Your task to perform on an android device: turn off notifications in google photos Image 0: 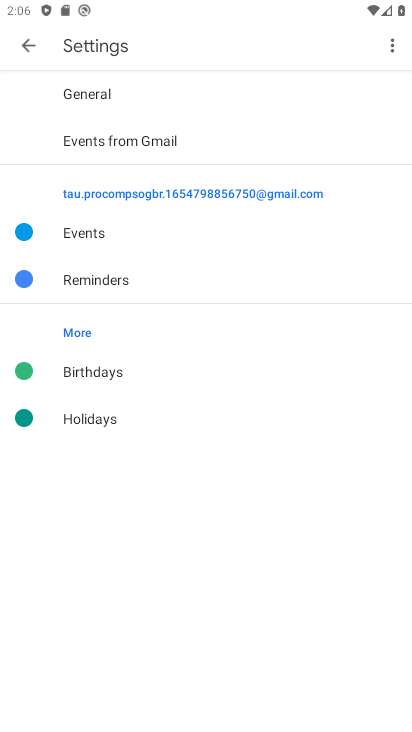
Step 0: press home button
Your task to perform on an android device: turn off notifications in google photos Image 1: 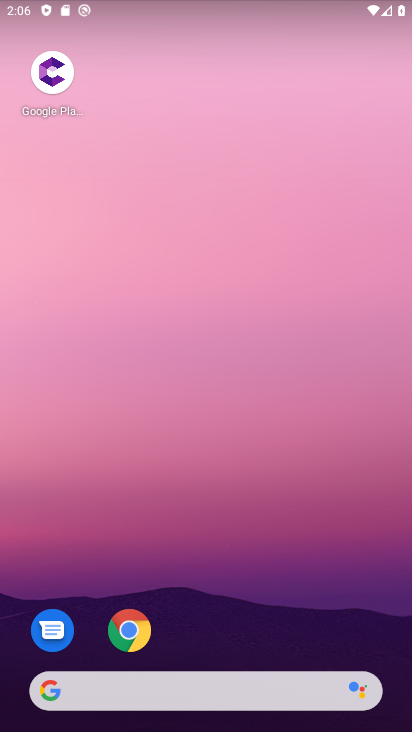
Step 1: drag from (249, 612) to (148, 13)
Your task to perform on an android device: turn off notifications in google photos Image 2: 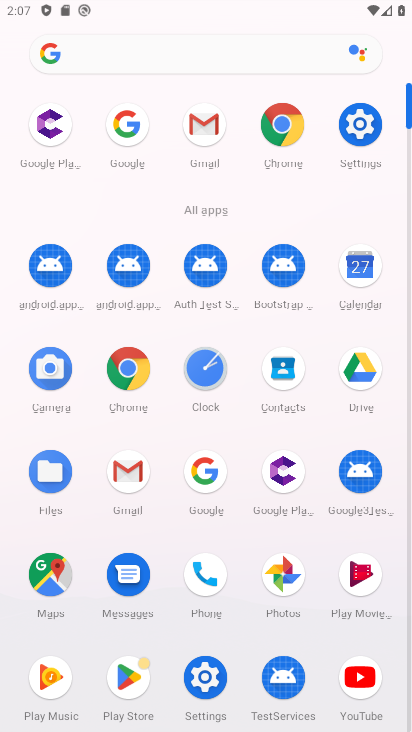
Step 2: click (278, 569)
Your task to perform on an android device: turn off notifications in google photos Image 3: 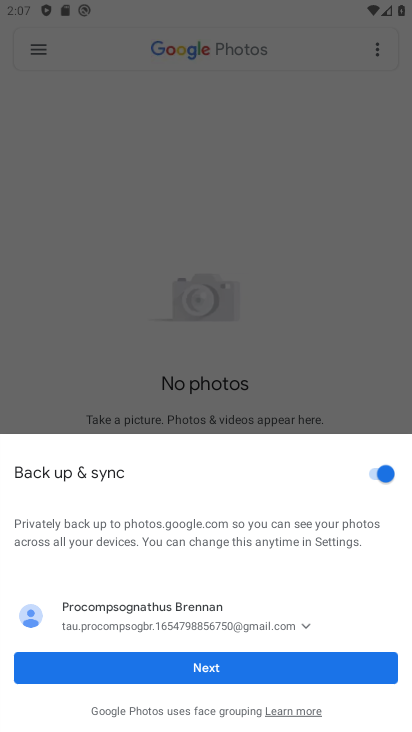
Step 3: click (232, 662)
Your task to perform on an android device: turn off notifications in google photos Image 4: 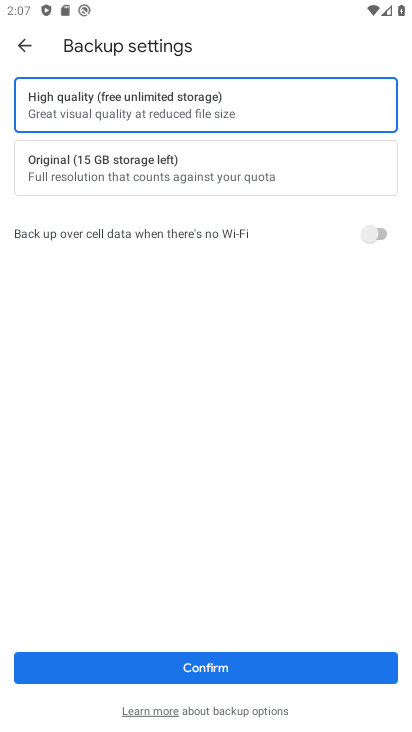
Step 4: click (237, 673)
Your task to perform on an android device: turn off notifications in google photos Image 5: 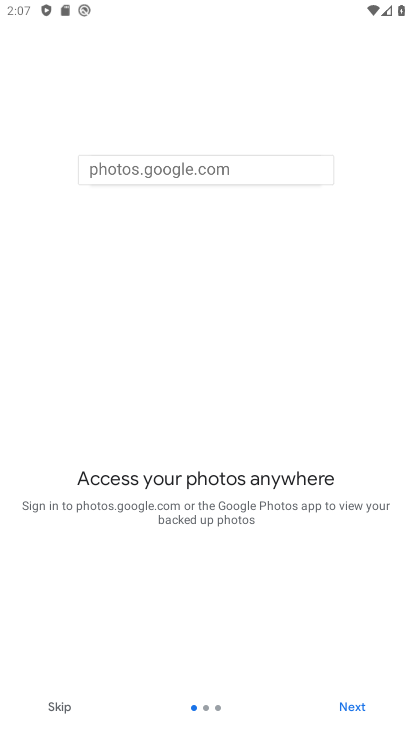
Step 5: click (62, 701)
Your task to perform on an android device: turn off notifications in google photos Image 6: 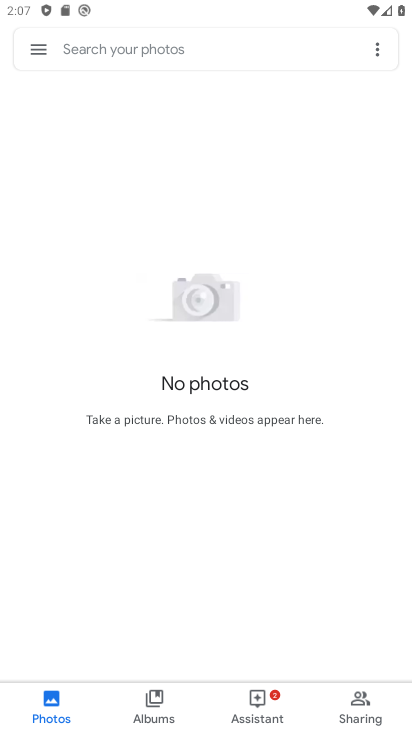
Step 6: click (33, 48)
Your task to perform on an android device: turn off notifications in google photos Image 7: 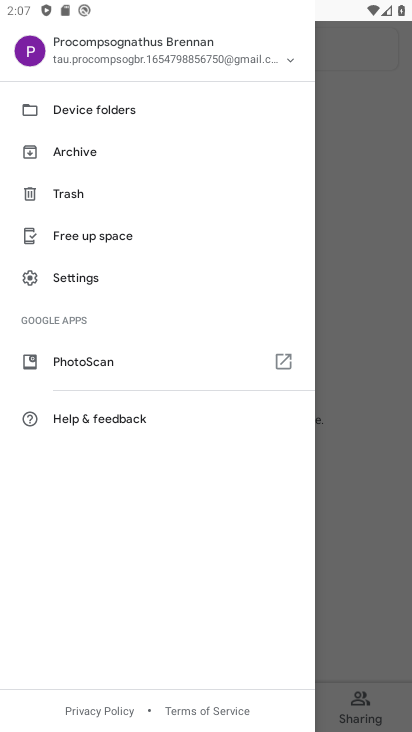
Step 7: click (42, 274)
Your task to perform on an android device: turn off notifications in google photos Image 8: 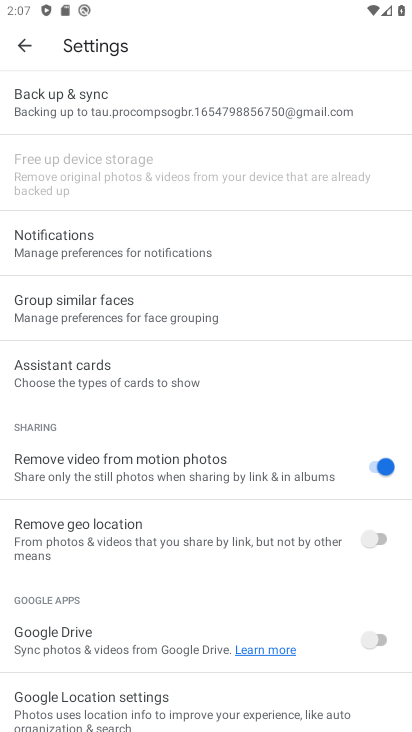
Step 8: click (98, 251)
Your task to perform on an android device: turn off notifications in google photos Image 9: 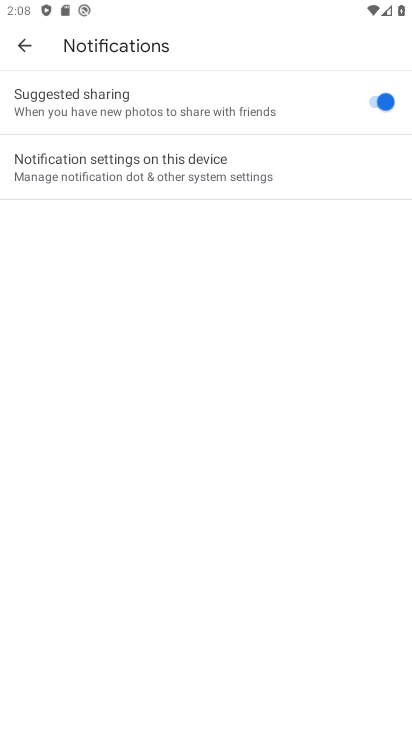
Step 9: click (229, 151)
Your task to perform on an android device: turn off notifications in google photos Image 10: 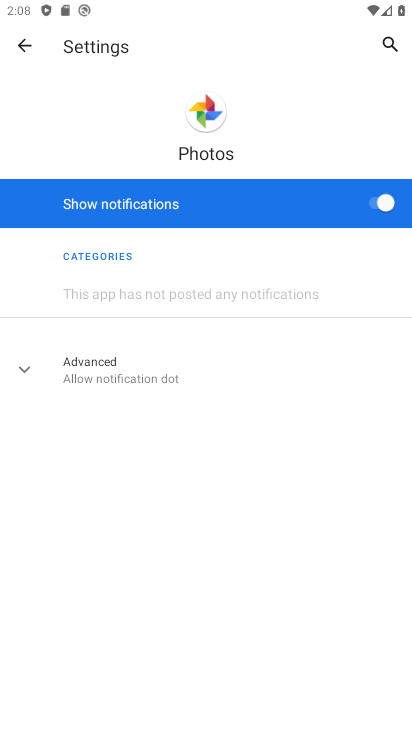
Step 10: click (383, 206)
Your task to perform on an android device: turn off notifications in google photos Image 11: 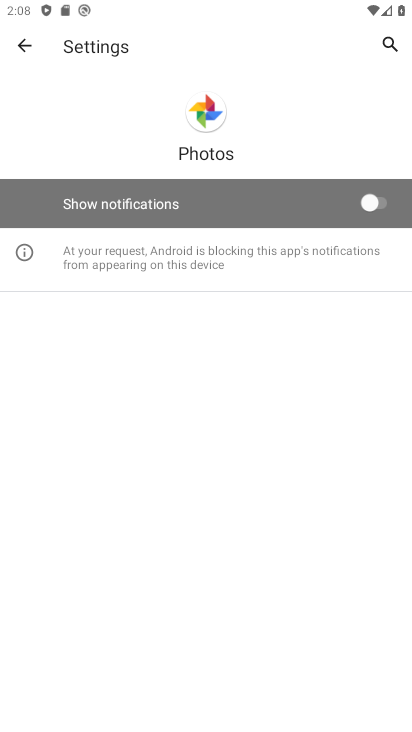
Step 11: task complete